Your task to perform on an android device: turn off airplane mode Image 0: 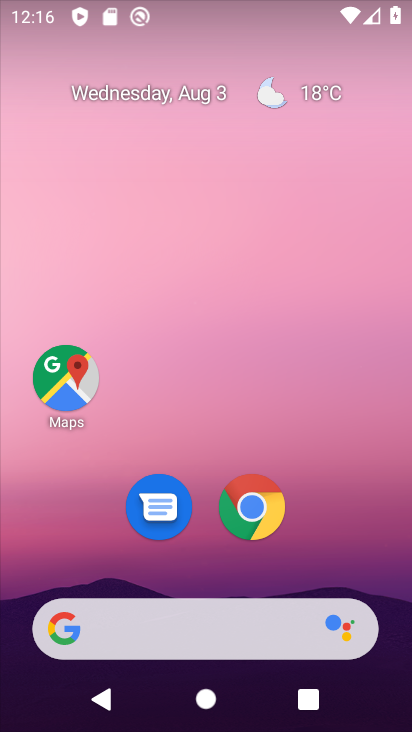
Step 0: drag from (195, 599) to (126, 0)
Your task to perform on an android device: turn off airplane mode Image 1: 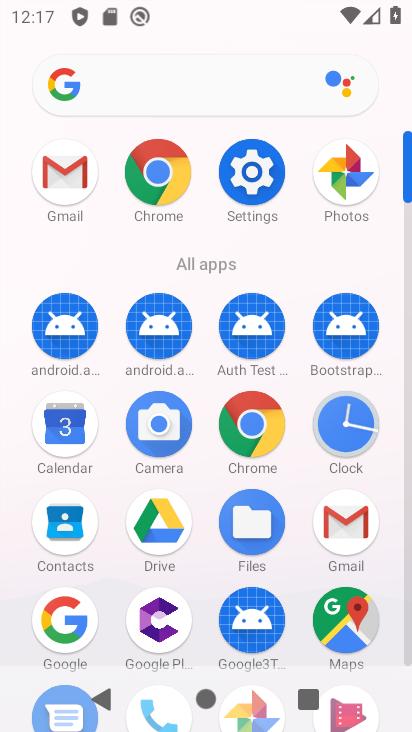
Step 1: click (254, 178)
Your task to perform on an android device: turn off airplane mode Image 2: 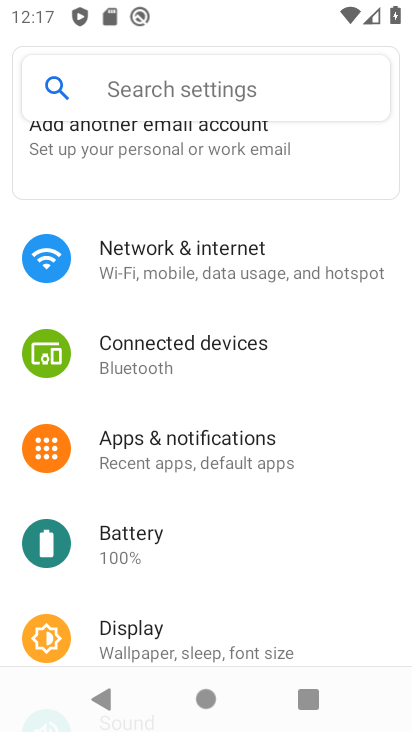
Step 2: click (242, 264)
Your task to perform on an android device: turn off airplane mode Image 3: 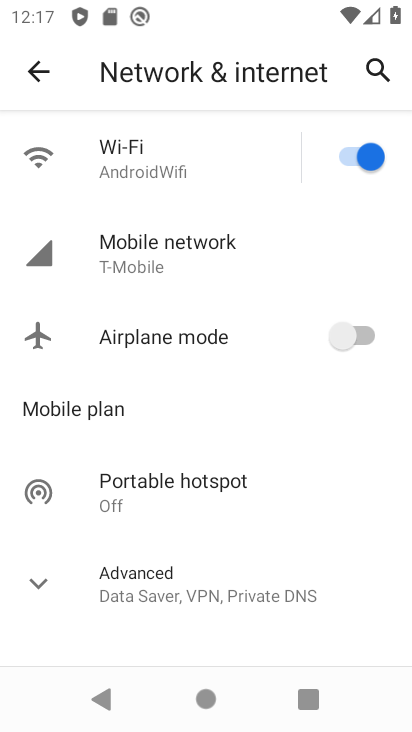
Step 3: task complete